Your task to perform on an android device: Open the calendar app, open the side menu, and click the "Day" option Image 0: 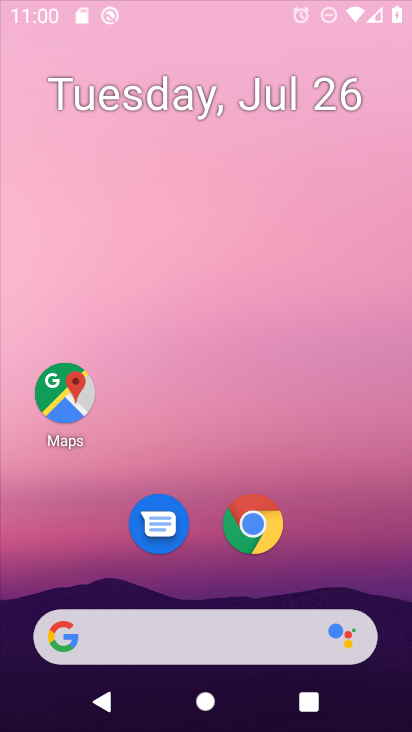
Step 0: press home button
Your task to perform on an android device: Open the calendar app, open the side menu, and click the "Day" option Image 1: 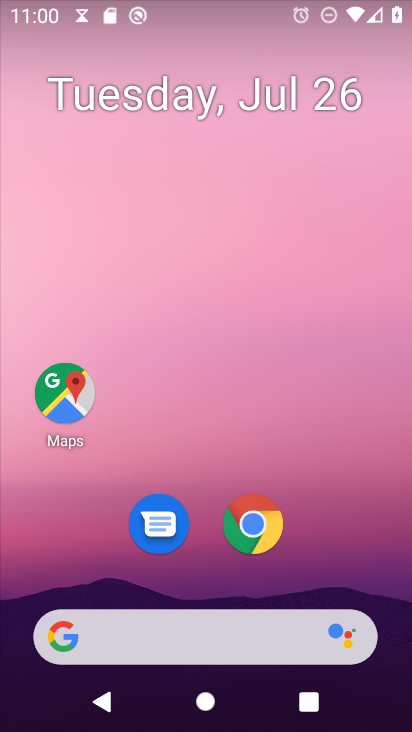
Step 1: drag from (137, 639) to (284, 141)
Your task to perform on an android device: Open the calendar app, open the side menu, and click the "Day" option Image 2: 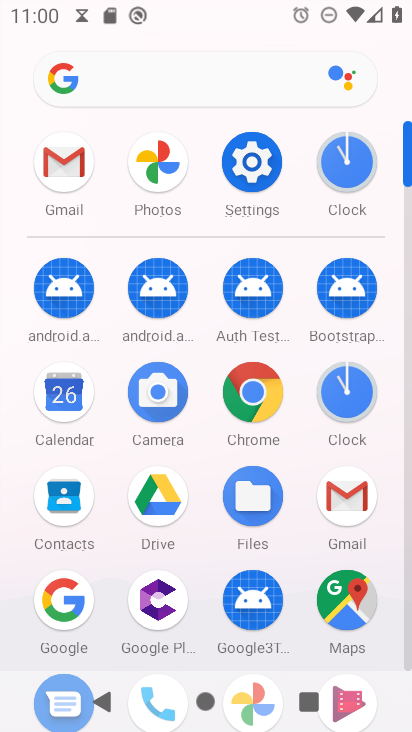
Step 2: click (59, 394)
Your task to perform on an android device: Open the calendar app, open the side menu, and click the "Day" option Image 3: 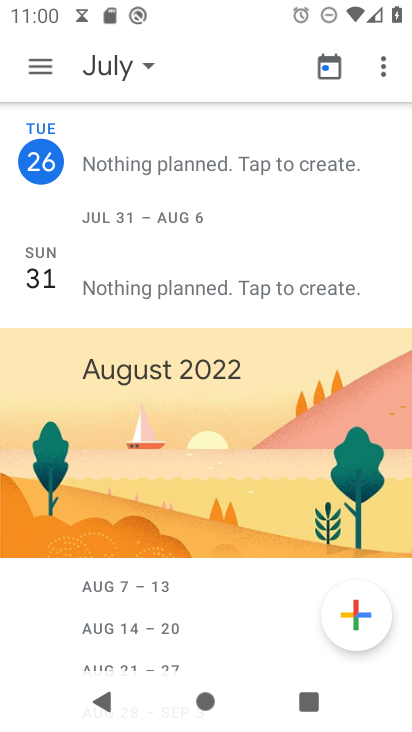
Step 3: click (47, 69)
Your task to perform on an android device: Open the calendar app, open the side menu, and click the "Day" option Image 4: 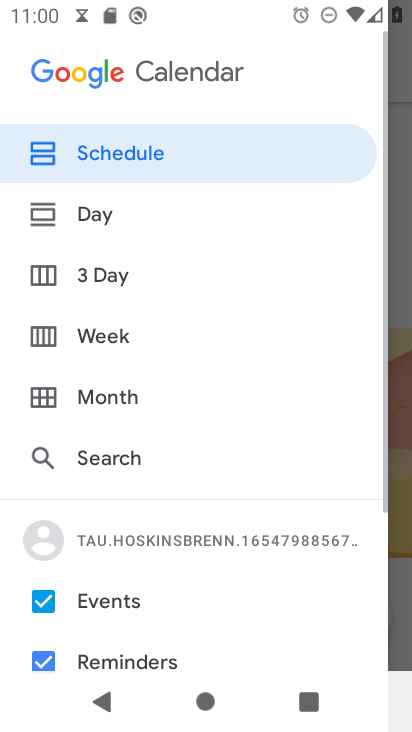
Step 4: click (83, 213)
Your task to perform on an android device: Open the calendar app, open the side menu, and click the "Day" option Image 5: 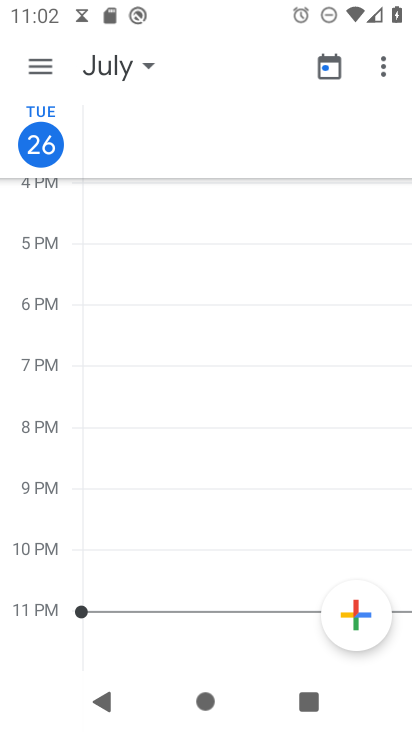
Step 5: task complete